Your task to perform on an android device: Open display settings Image 0: 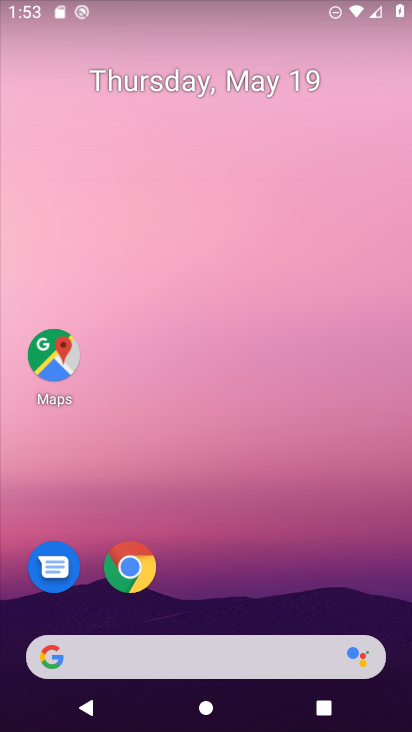
Step 0: drag from (260, 526) to (211, 97)
Your task to perform on an android device: Open display settings Image 1: 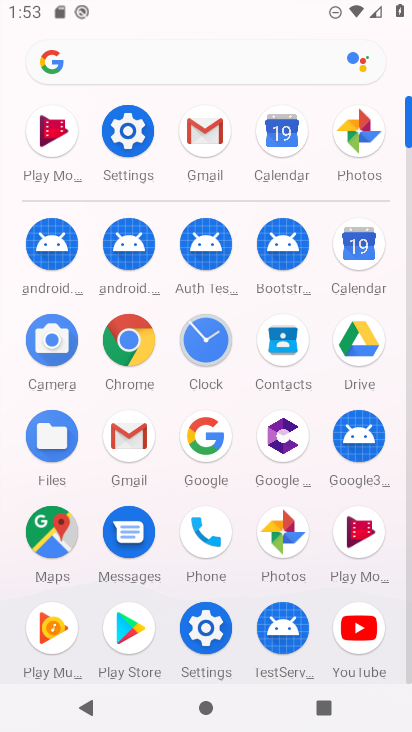
Step 1: click (133, 122)
Your task to perform on an android device: Open display settings Image 2: 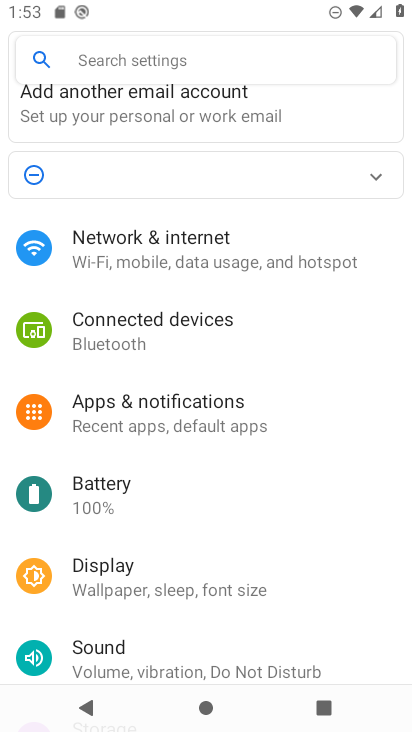
Step 2: click (145, 572)
Your task to perform on an android device: Open display settings Image 3: 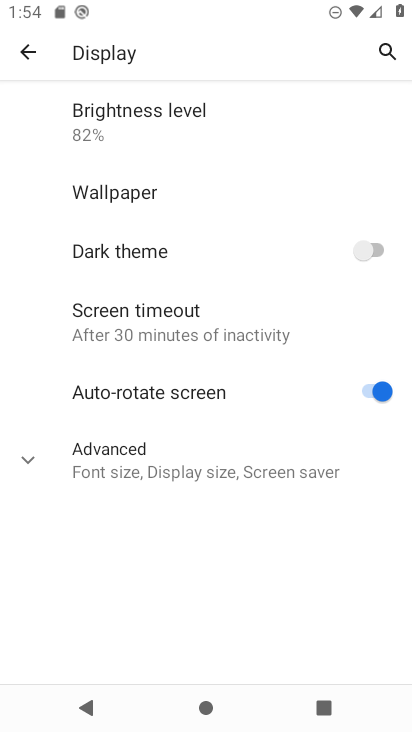
Step 3: task complete